Your task to perform on an android device: turn on data saver in the chrome app Image 0: 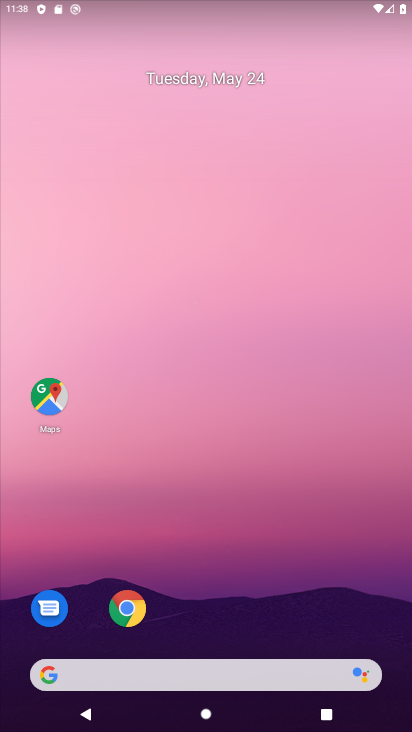
Step 0: drag from (194, 653) to (285, 148)
Your task to perform on an android device: turn on data saver in the chrome app Image 1: 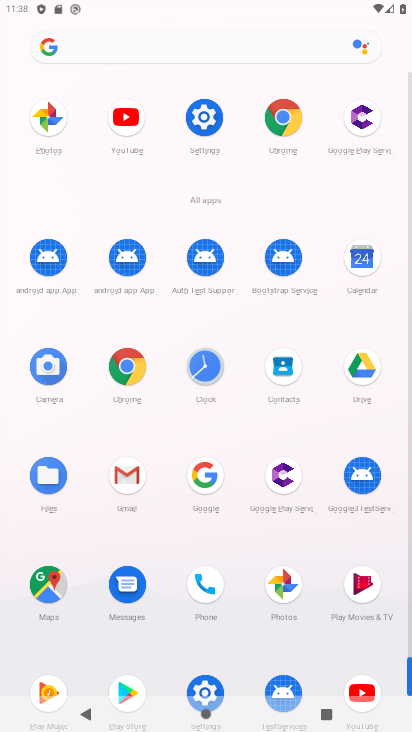
Step 1: click (136, 384)
Your task to perform on an android device: turn on data saver in the chrome app Image 2: 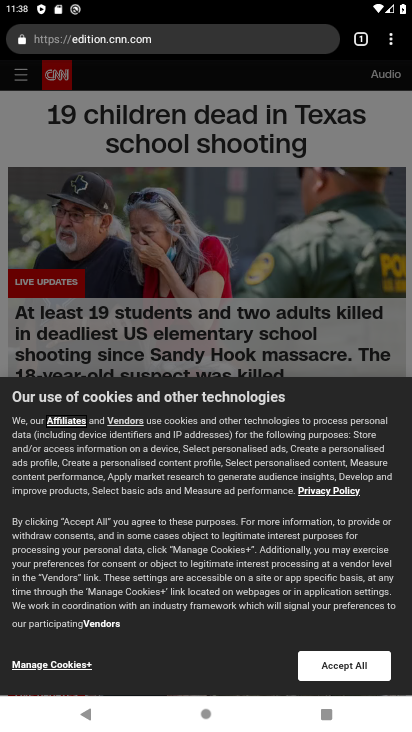
Step 2: drag from (393, 29) to (273, 469)
Your task to perform on an android device: turn on data saver in the chrome app Image 3: 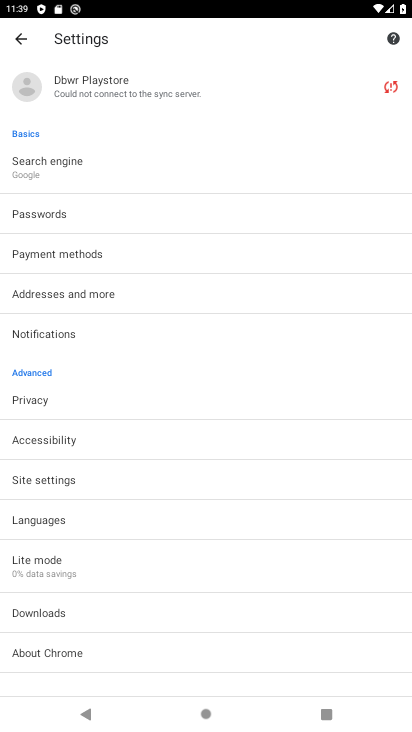
Step 3: drag from (165, 645) to (234, 279)
Your task to perform on an android device: turn on data saver in the chrome app Image 4: 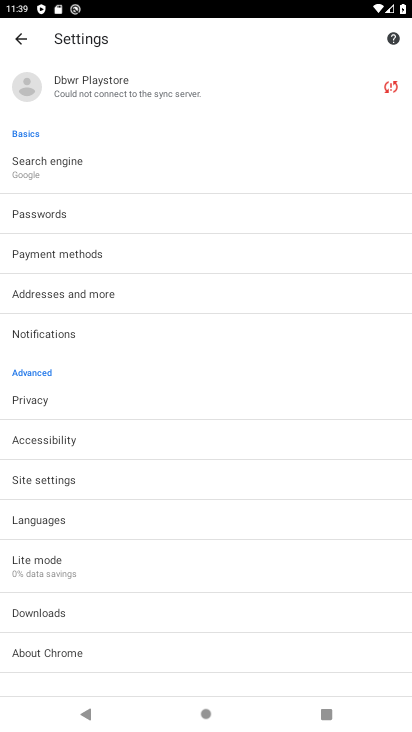
Step 4: click (84, 568)
Your task to perform on an android device: turn on data saver in the chrome app Image 5: 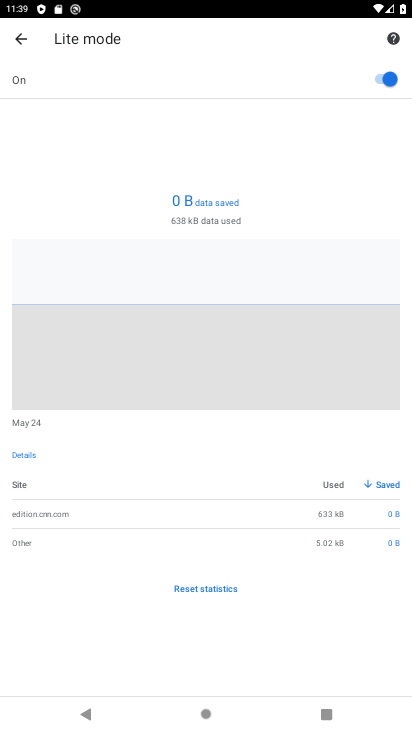
Step 5: task complete